Your task to perform on an android device: find snoozed emails in the gmail app Image 0: 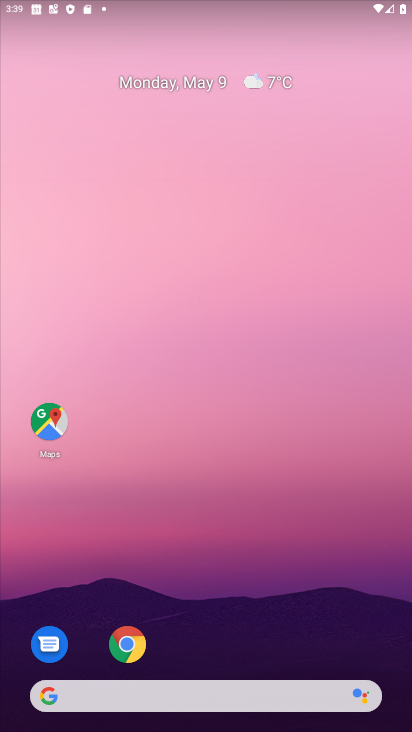
Step 0: click (304, 20)
Your task to perform on an android device: find snoozed emails in the gmail app Image 1: 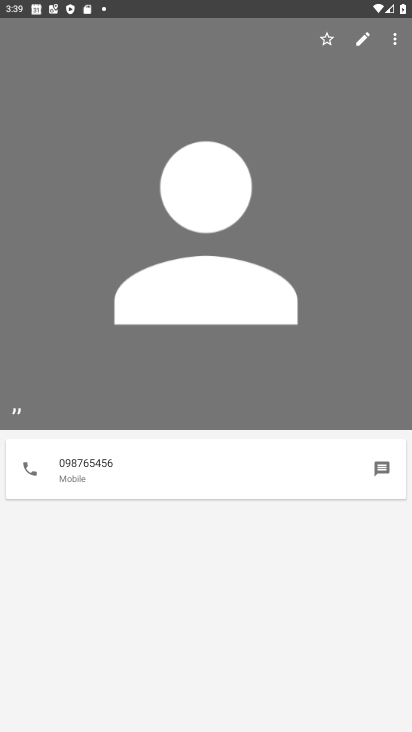
Step 1: task complete